Your task to perform on an android device: Search for sushi restaurants on Maps Image 0: 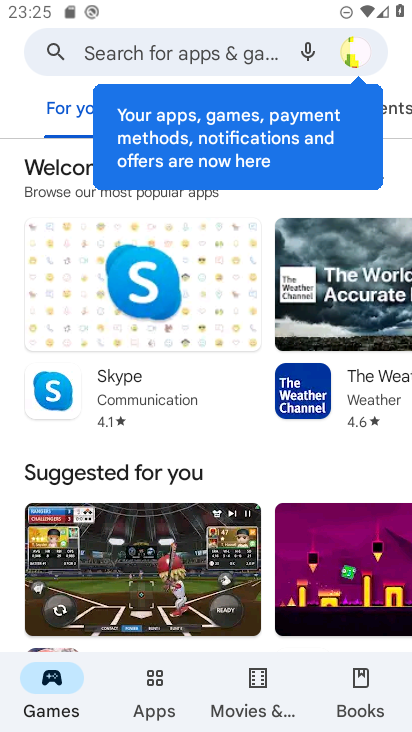
Step 0: press home button
Your task to perform on an android device: Search for sushi restaurants on Maps Image 1: 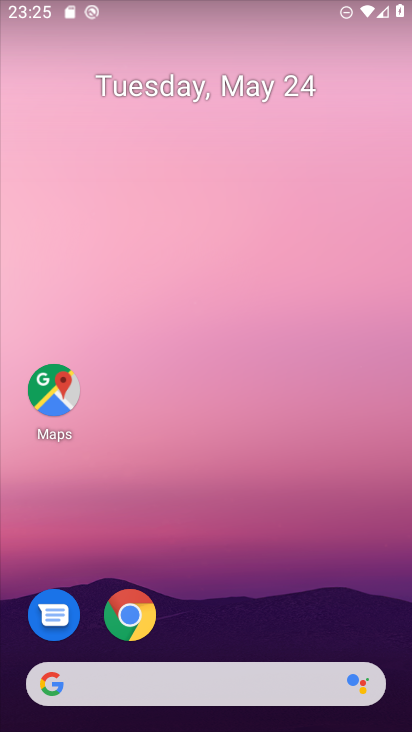
Step 1: drag from (239, 707) to (328, 5)
Your task to perform on an android device: Search for sushi restaurants on Maps Image 2: 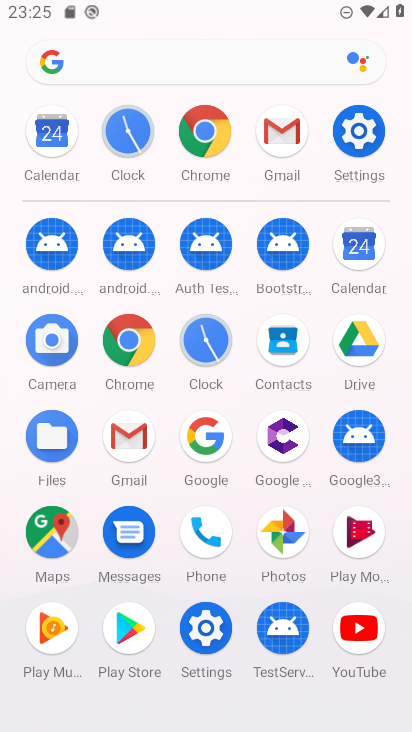
Step 2: click (62, 540)
Your task to perform on an android device: Search for sushi restaurants on Maps Image 3: 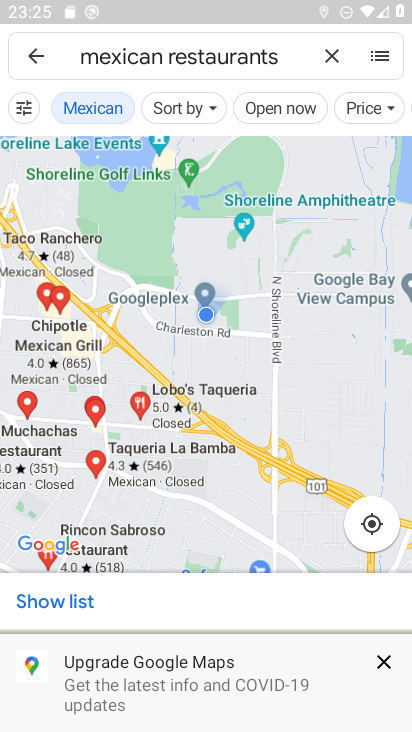
Step 3: click (339, 60)
Your task to perform on an android device: Search for sushi restaurants on Maps Image 4: 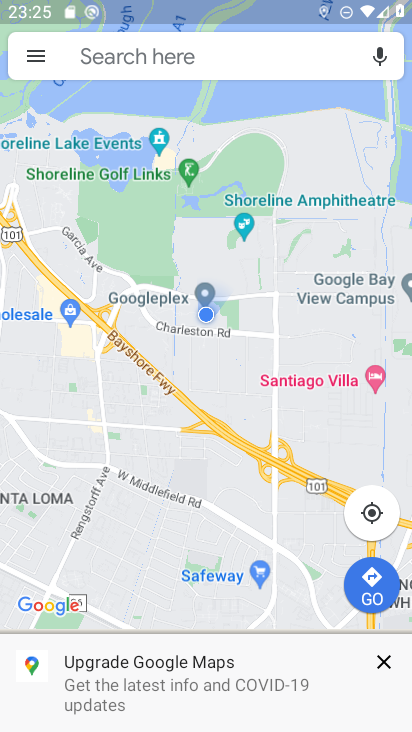
Step 4: click (109, 54)
Your task to perform on an android device: Search for sushi restaurants on Maps Image 5: 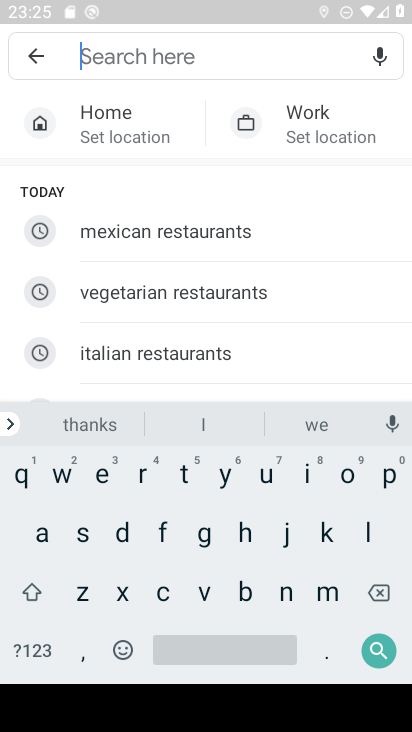
Step 5: click (83, 534)
Your task to perform on an android device: Search for sushi restaurants on Maps Image 6: 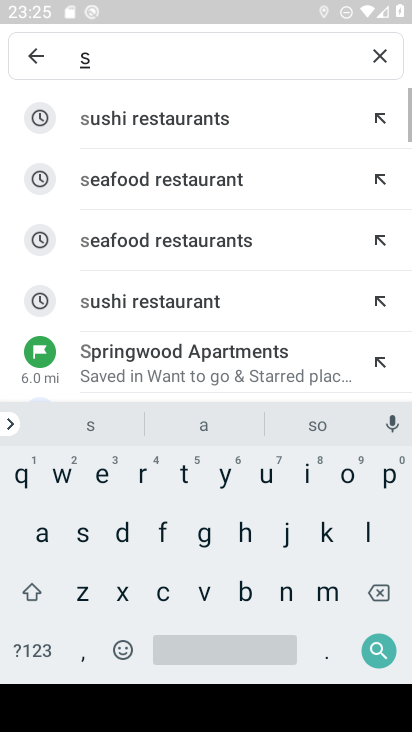
Step 6: click (162, 120)
Your task to perform on an android device: Search for sushi restaurants on Maps Image 7: 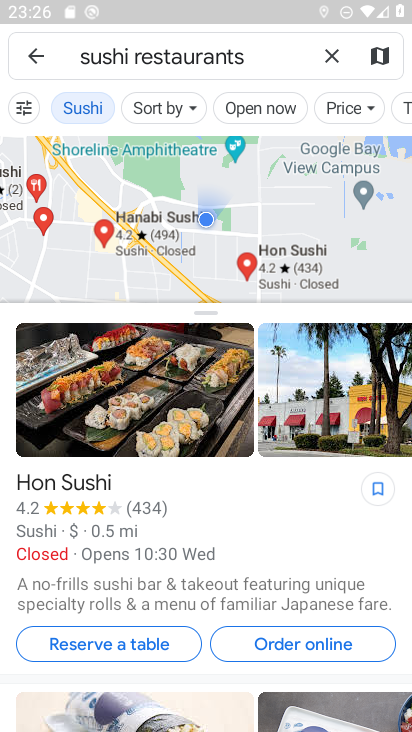
Step 7: task complete